Your task to perform on an android device: see tabs open on other devices in the chrome app Image 0: 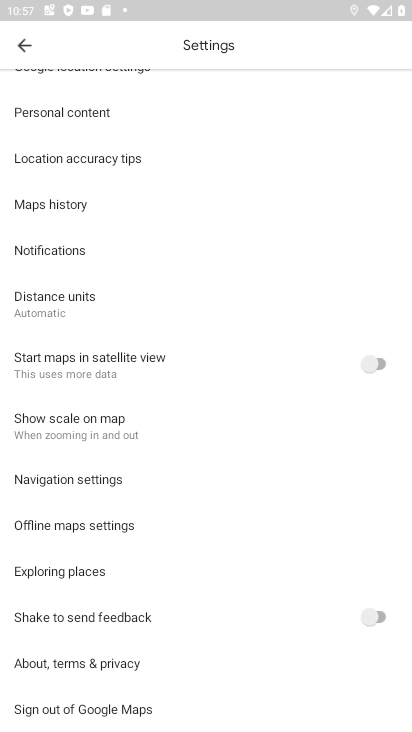
Step 0: press home button
Your task to perform on an android device: see tabs open on other devices in the chrome app Image 1: 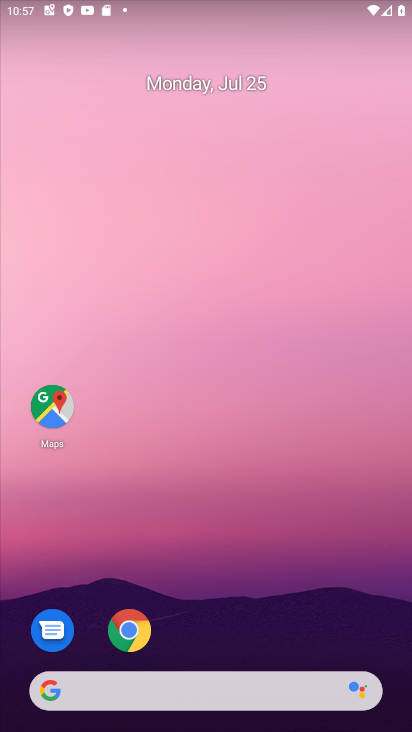
Step 1: drag from (346, 634) to (379, 102)
Your task to perform on an android device: see tabs open on other devices in the chrome app Image 2: 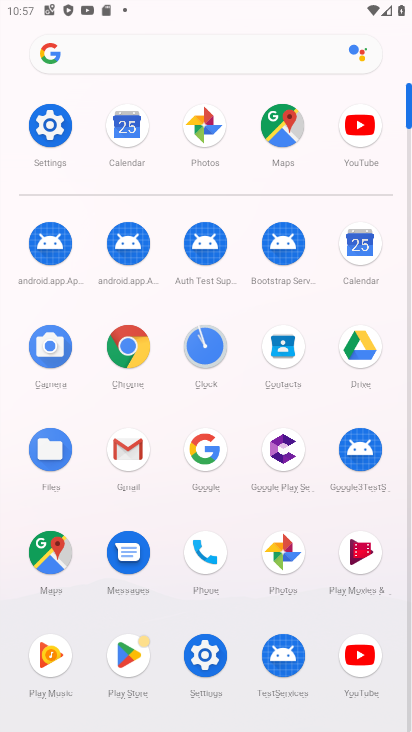
Step 2: click (134, 353)
Your task to perform on an android device: see tabs open on other devices in the chrome app Image 3: 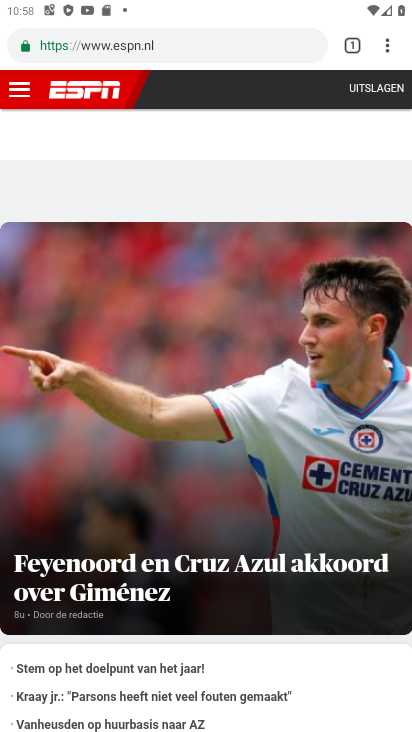
Step 3: click (386, 47)
Your task to perform on an android device: see tabs open on other devices in the chrome app Image 4: 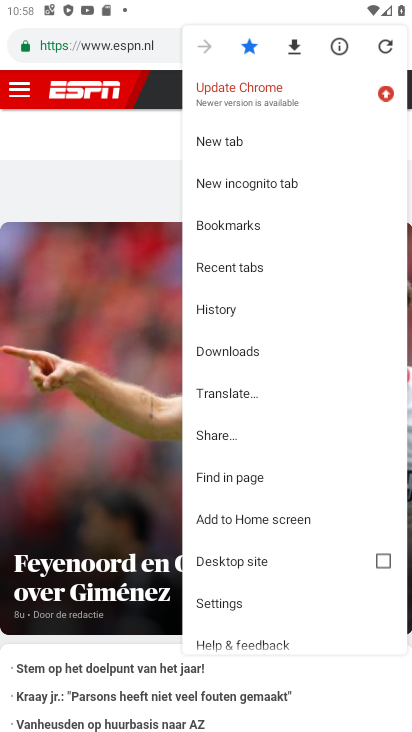
Step 4: click (249, 267)
Your task to perform on an android device: see tabs open on other devices in the chrome app Image 5: 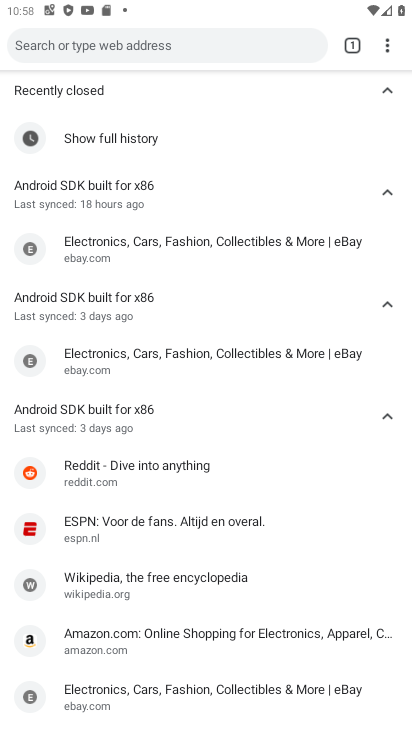
Step 5: click (352, 41)
Your task to perform on an android device: see tabs open on other devices in the chrome app Image 6: 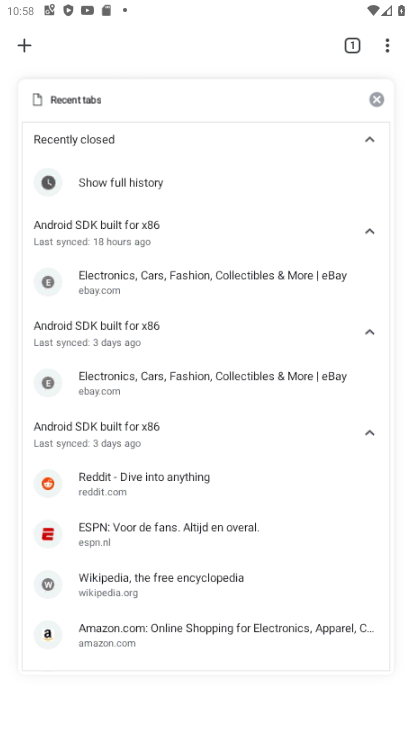
Step 6: task complete